Your task to perform on an android device: When is my next meeting? Image 0: 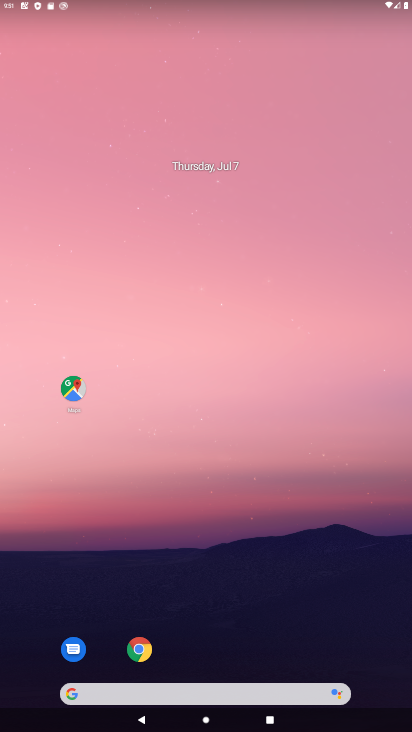
Step 0: drag from (286, 591) to (283, 334)
Your task to perform on an android device: When is my next meeting? Image 1: 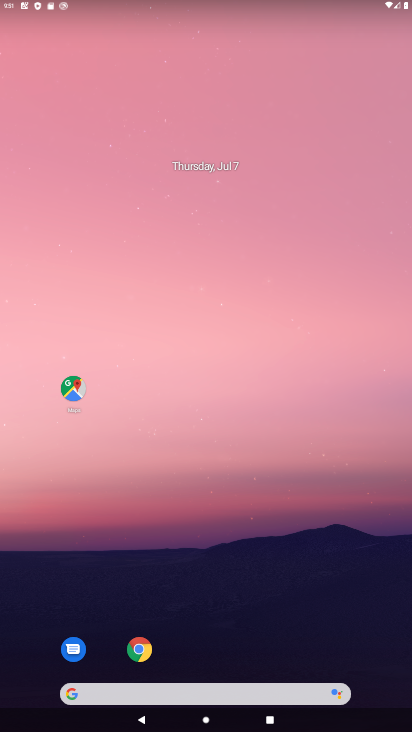
Step 1: drag from (276, 597) to (267, 244)
Your task to perform on an android device: When is my next meeting? Image 2: 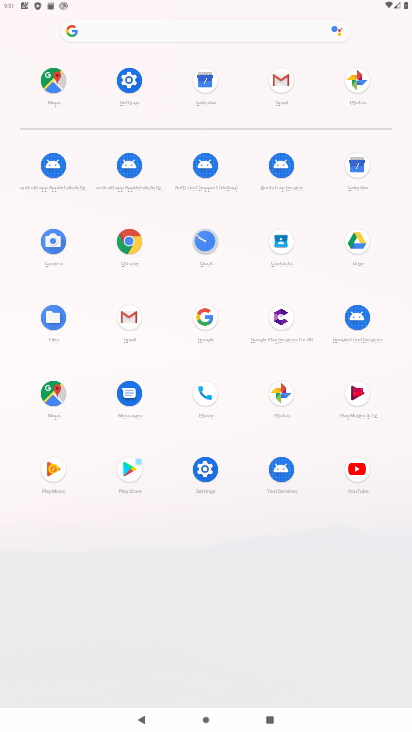
Step 2: click (362, 167)
Your task to perform on an android device: When is my next meeting? Image 3: 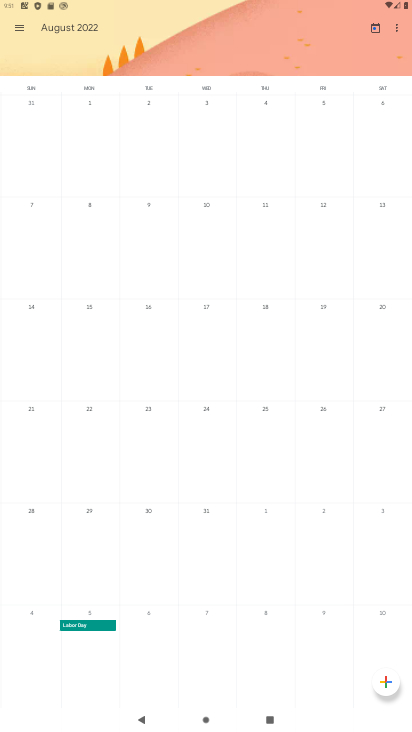
Step 3: click (17, 28)
Your task to perform on an android device: When is my next meeting? Image 4: 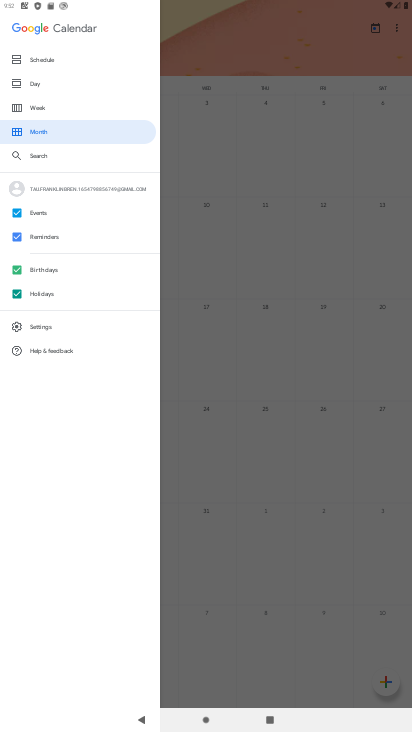
Step 4: click (323, 40)
Your task to perform on an android device: When is my next meeting? Image 5: 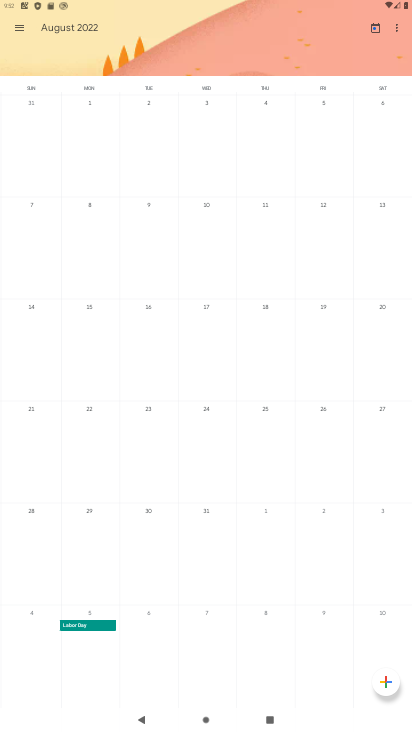
Step 5: click (21, 24)
Your task to perform on an android device: When is my next meeting? Image 6: 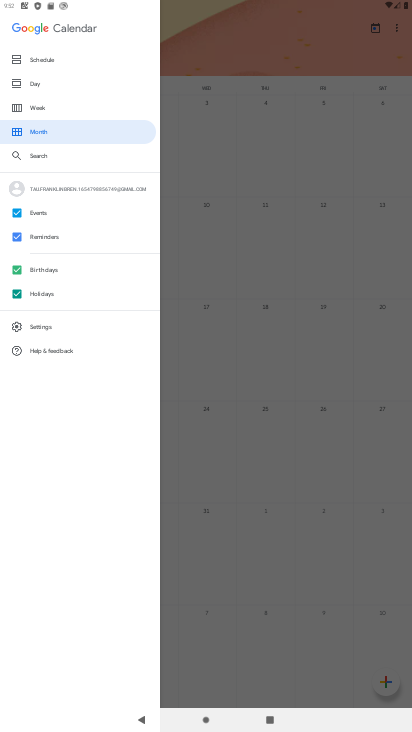
Step 6: click (37, 62)
Your task to perform on an android device: When is my next meeting? Image 7: 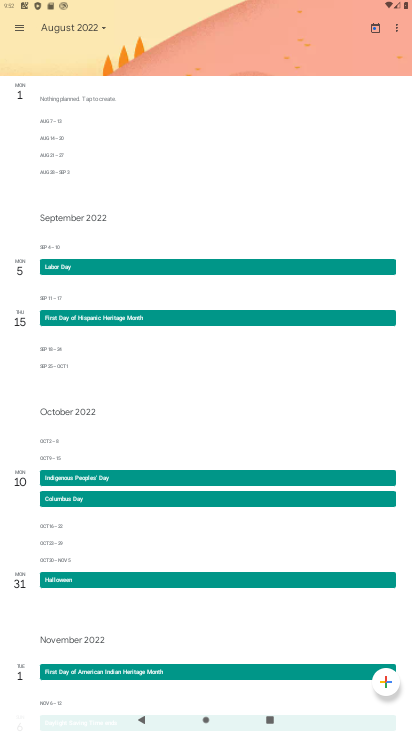
Step 7: task complete